Your task to perform on an android device: Empty the shopping cart on walmart.com. Add lenovo thinkpad to the cart on walmart.com, then select checkout. Image 0: 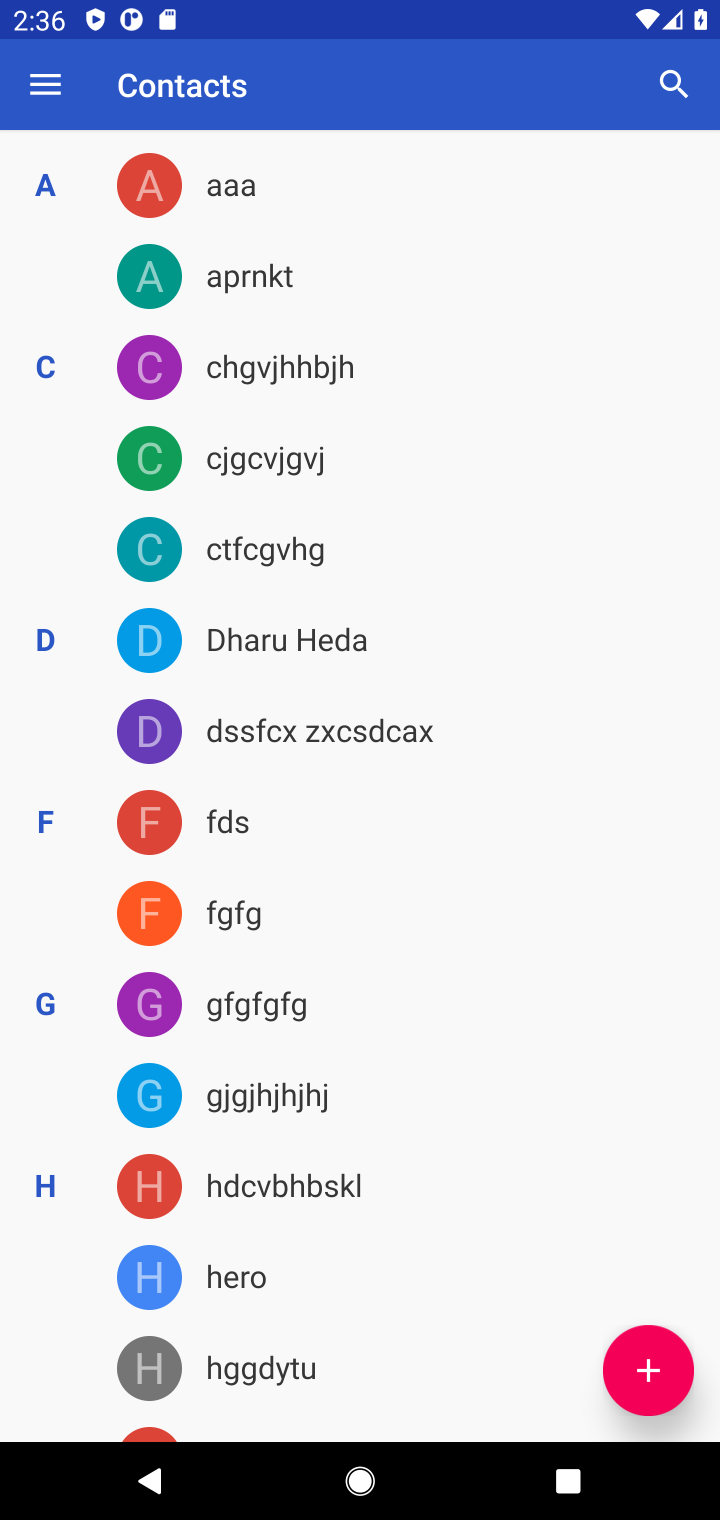
Step 0: press home button
Your task to perform on an android device: Empty the shopping cart on walmart.com. Add lenovo thinkpad to the cart on walmart.com, then select checkout. Image 1: 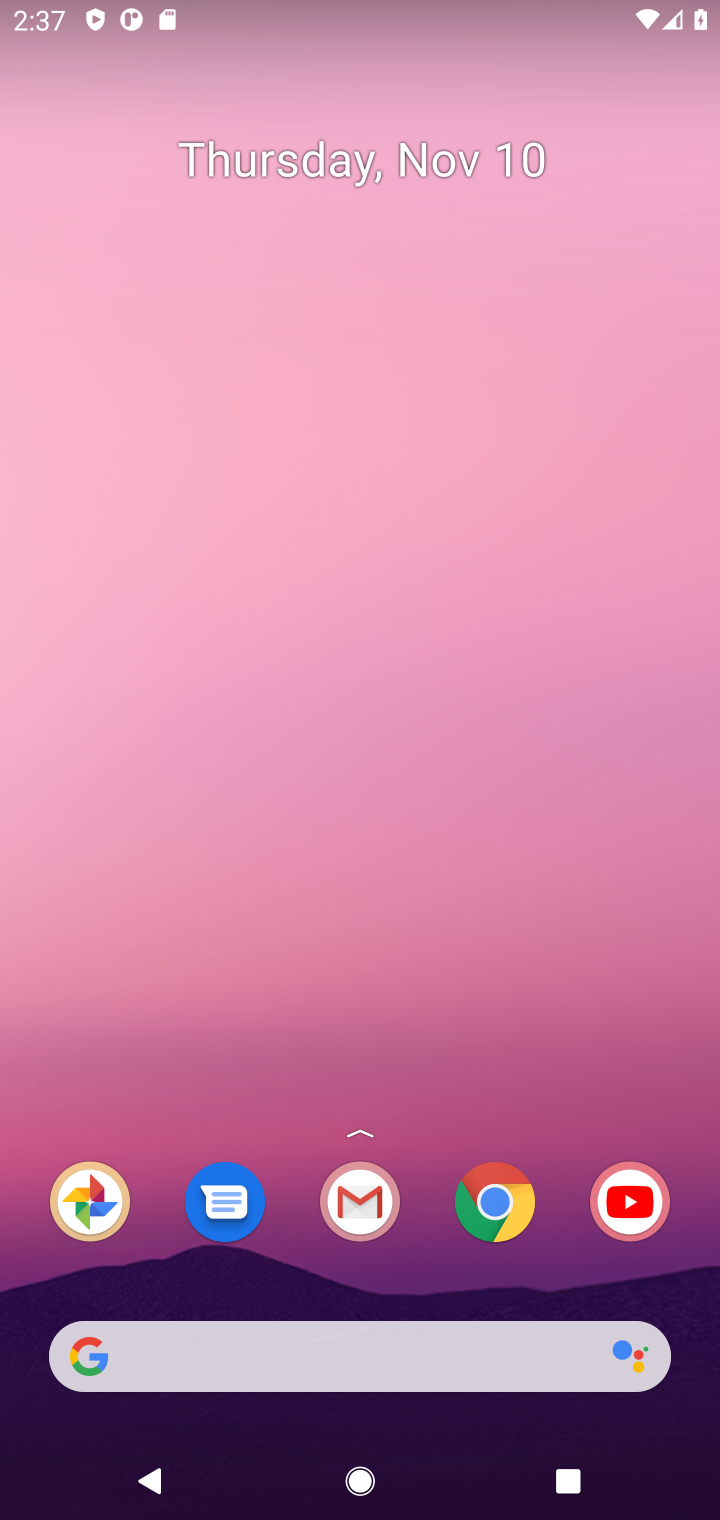
Step 1: click (492, 1201)
Your task to perform on an android device: Empty the shopping cart on walmart.com. Add lenovo thinkpad to the cart on walmart.com, then select checkout. Image 2: 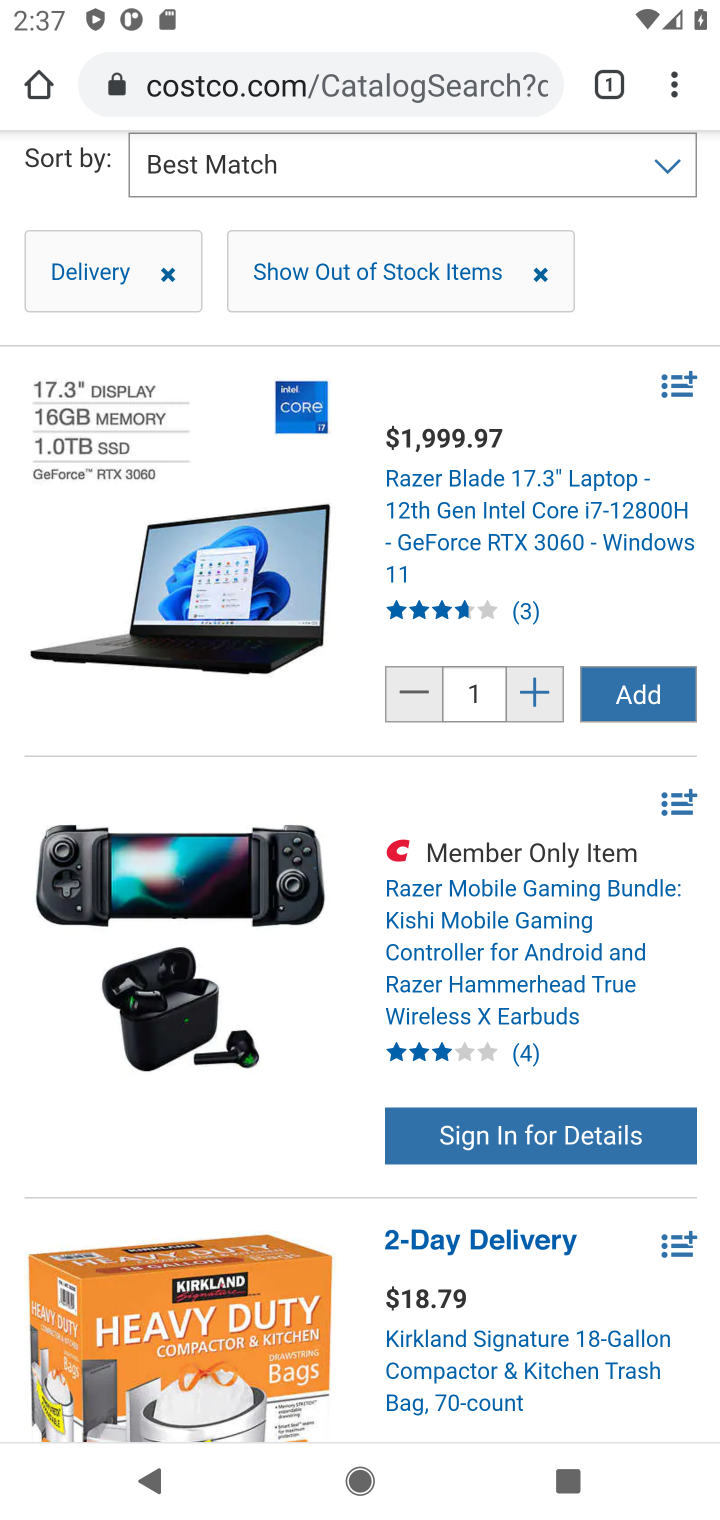
Step 2: click (356, 90)
Your task to perform on an android device: Empty the shopping cart on walmart.com. Add lenovo thinkpad to the cart on walmart.com, then select checkout. Image 3: 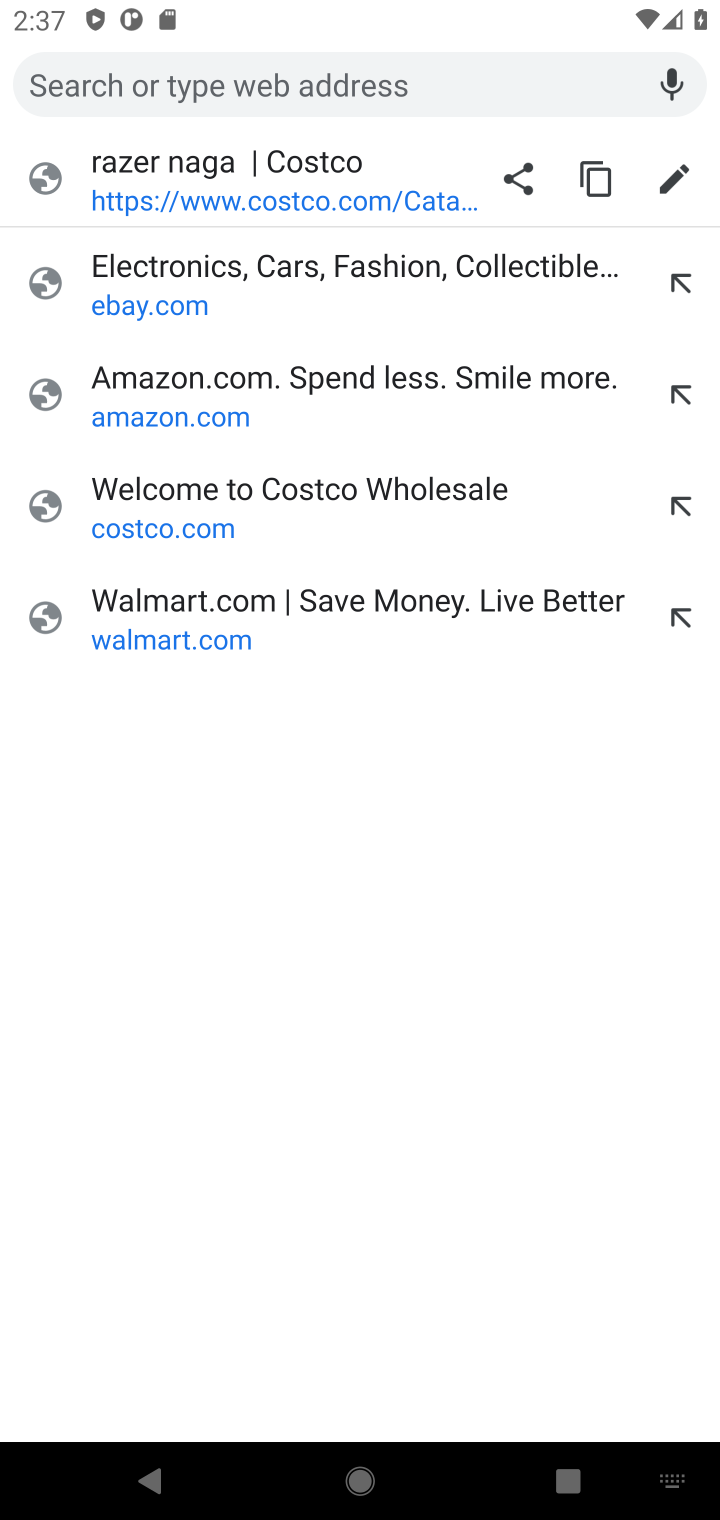
Step 3: press enter
Your task to perform on an android device: Empty the shopping cart on walmart.com. Add lenovo thinkpad to the cart on walmart.com, then select checkout. Image 4: 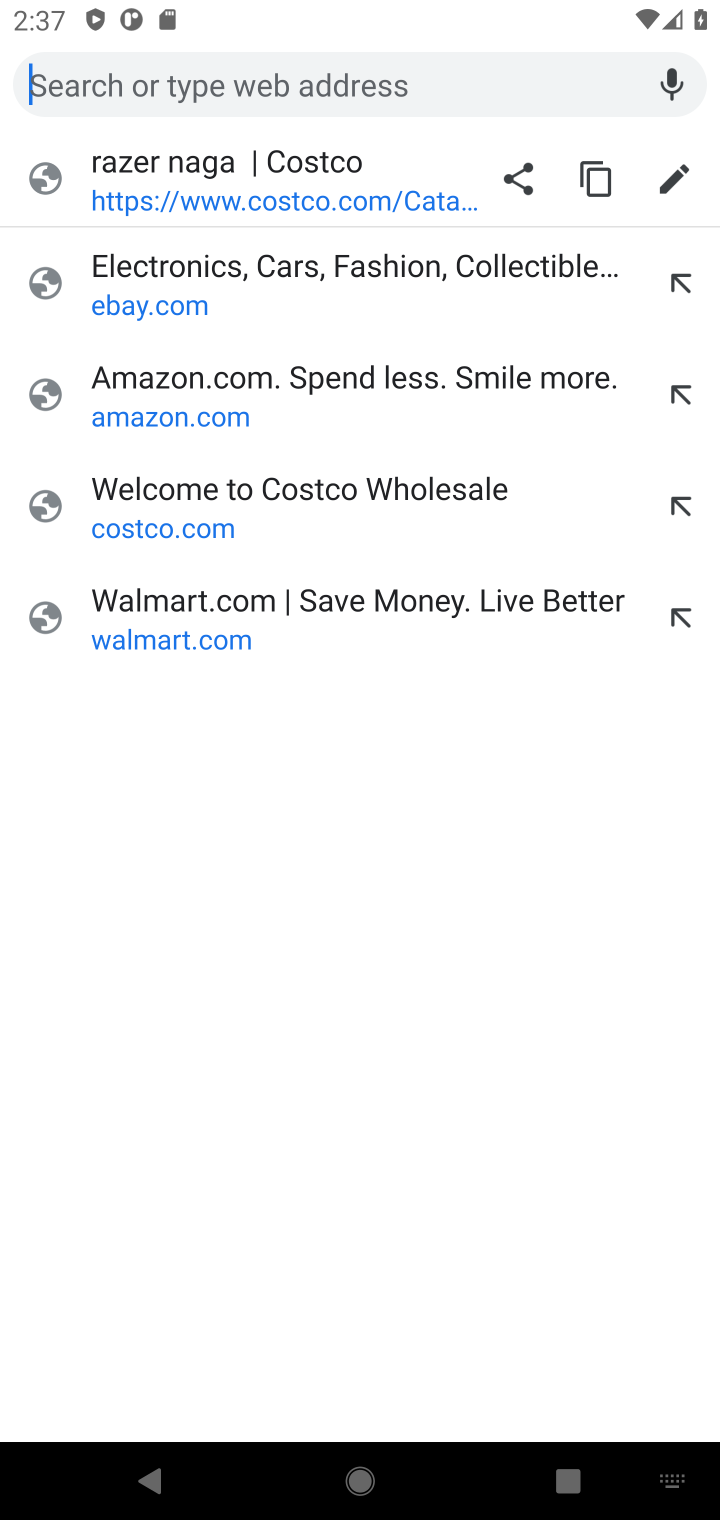
Step 4: type "walmart.com"
Your task to perform on an android device: Empty the shopping cart on walmart.com. Add lenovo thinkpad to the cart on walmart.com, then select checkout. Image 5: 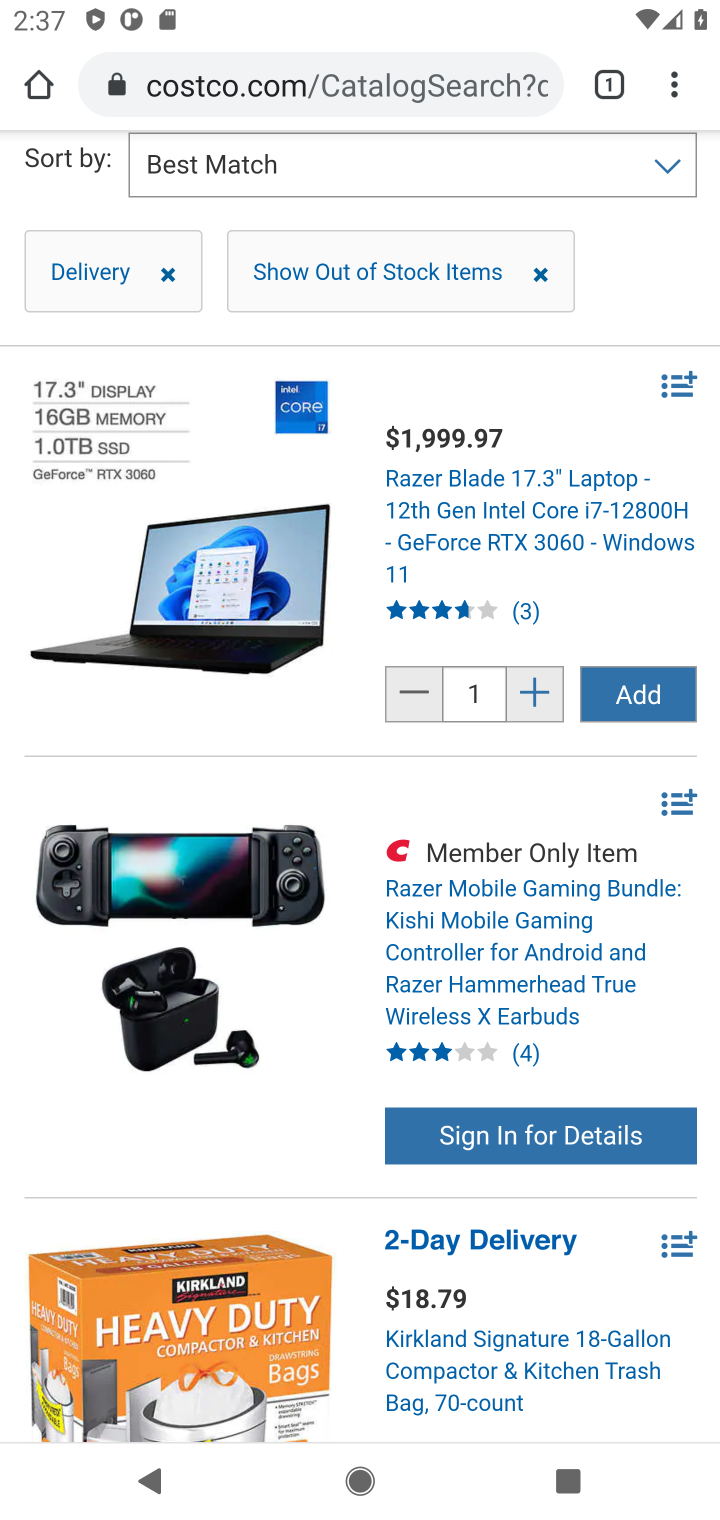
Step 5: drag from (353, 170) to (417, 800)
Your task to perform on an android device: Empty the shopping cart on walmart.com. Add lenovo thinkpad to the cart on walmart.com, then select checkout. Image 6: 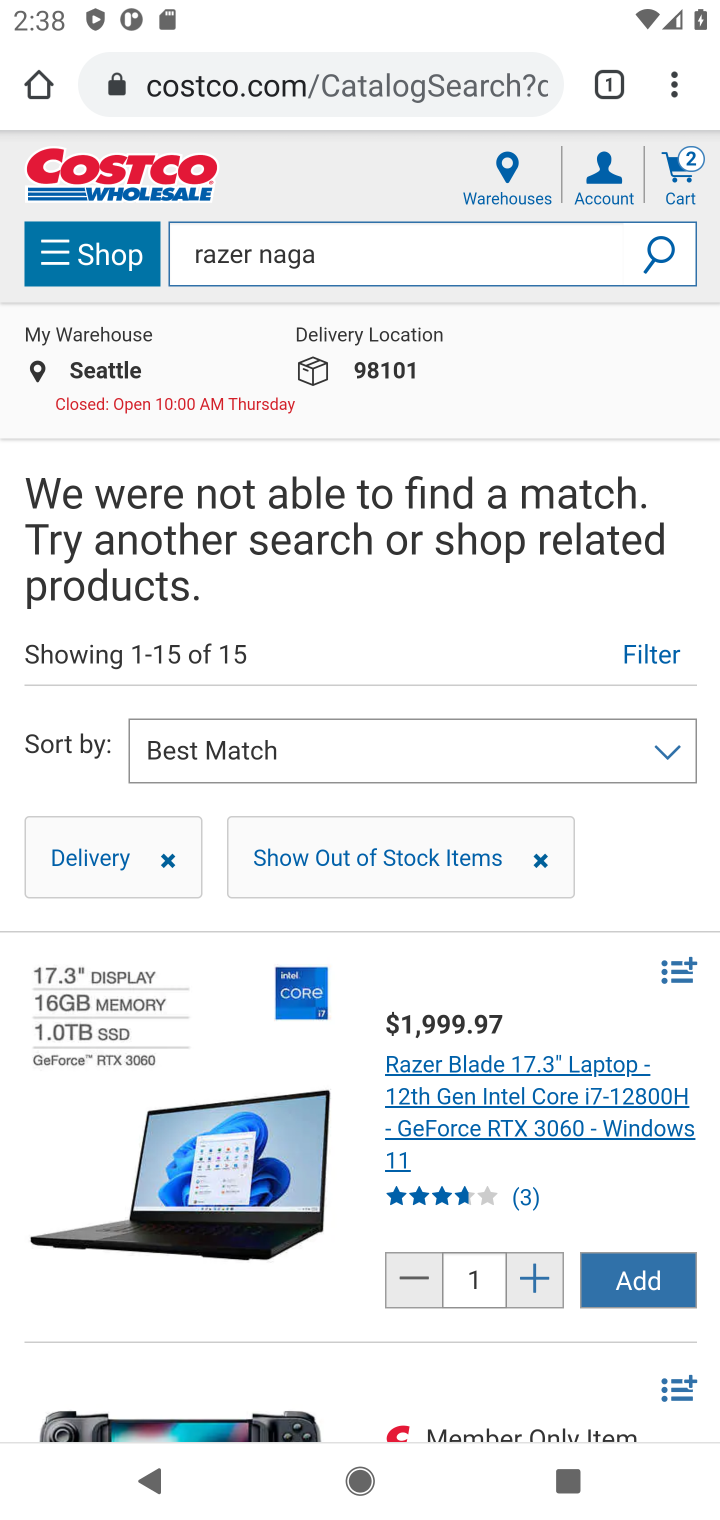
Step 6: click (384, 71)
Your task to perform on an android device: Empty the shopping cart on walmart.com. Add lenovo thinkpad to the cart on walmart.com, then select checkout. Image 7: 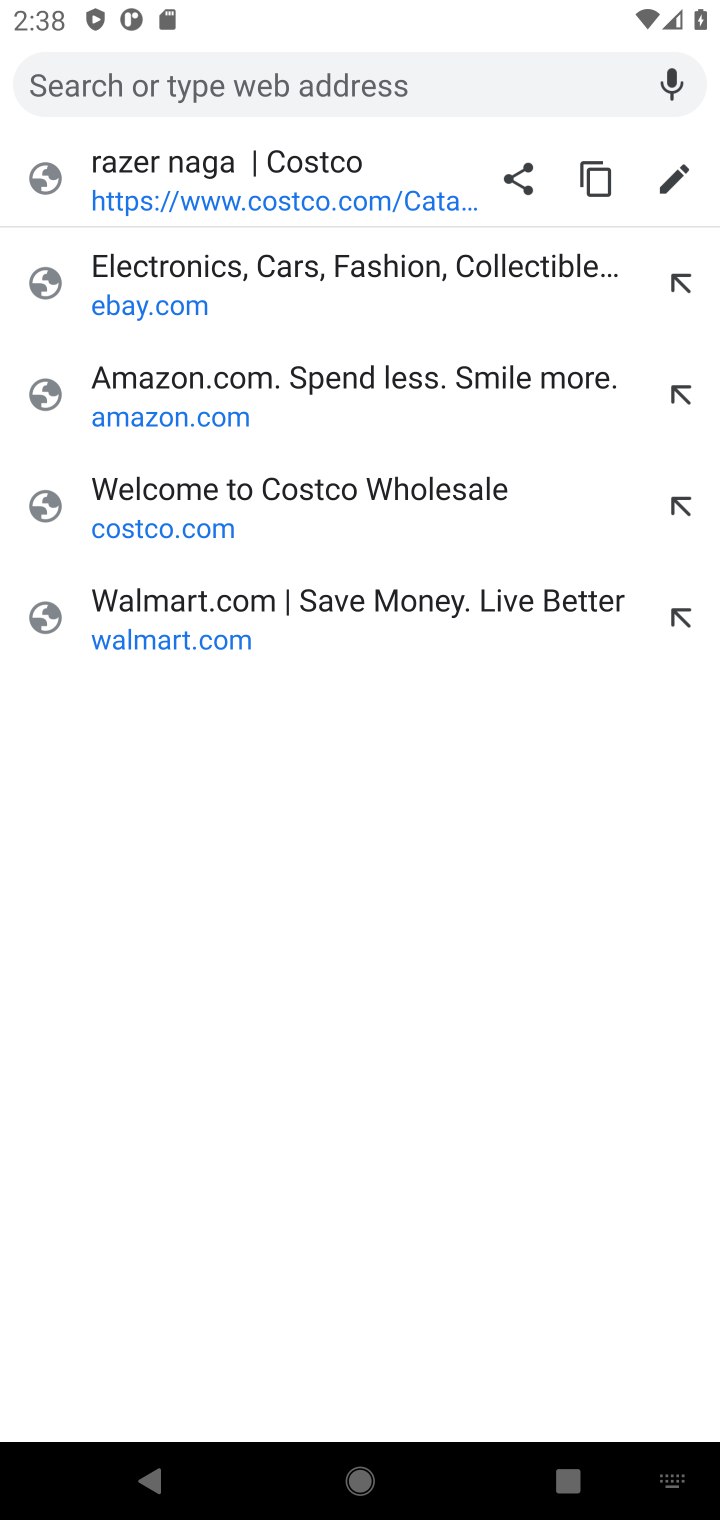
Step 7: press enter
Your task to perform on an android device: Empty the shopping cart on walmart.com. Add lenovo thinkpad to the cart on walmart.com, then select checkout. Image 8: 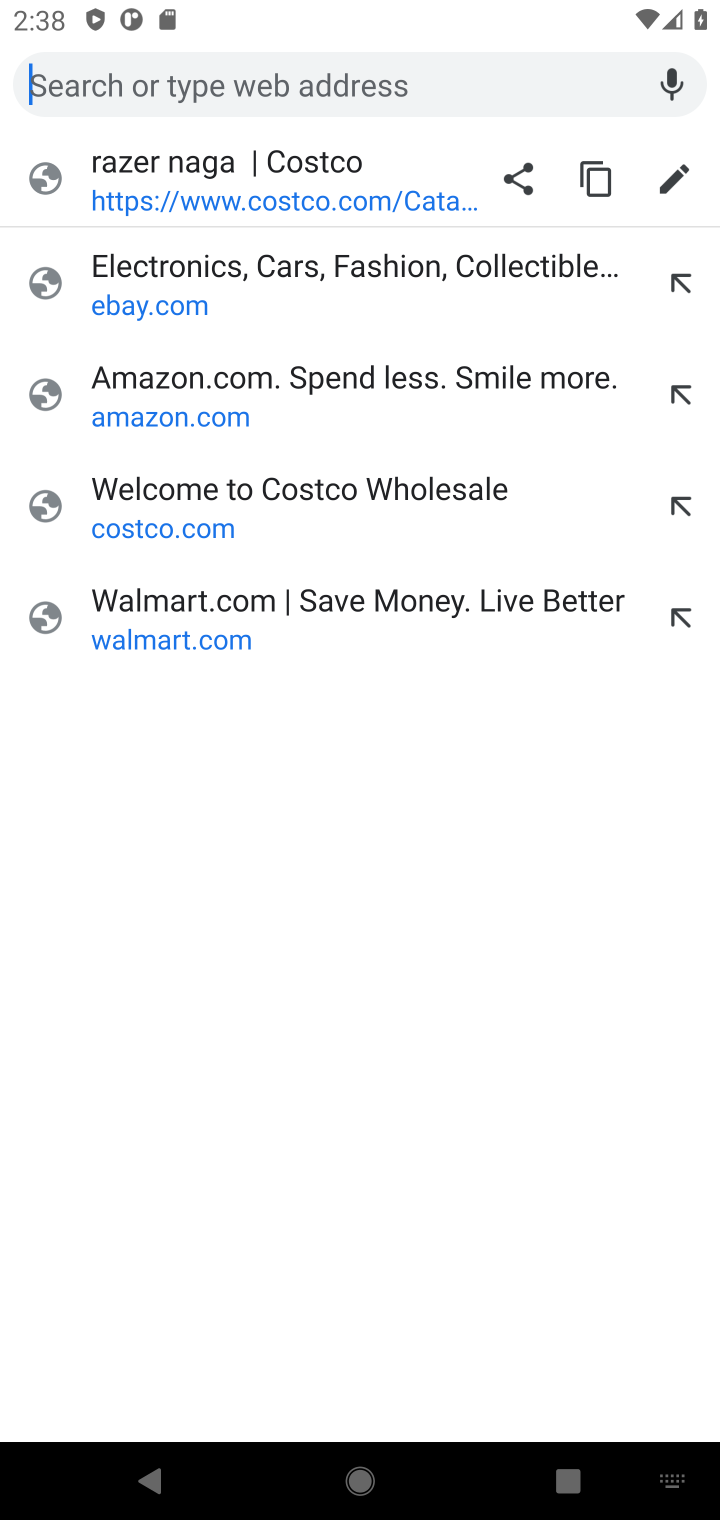
Step 8: type "walmart.com"
Your task to perform on an android device: Empty the shopping cart on walmart.com. Add lenovo thinkpad to the cart on walmart.com, then select checkout. Image 9: 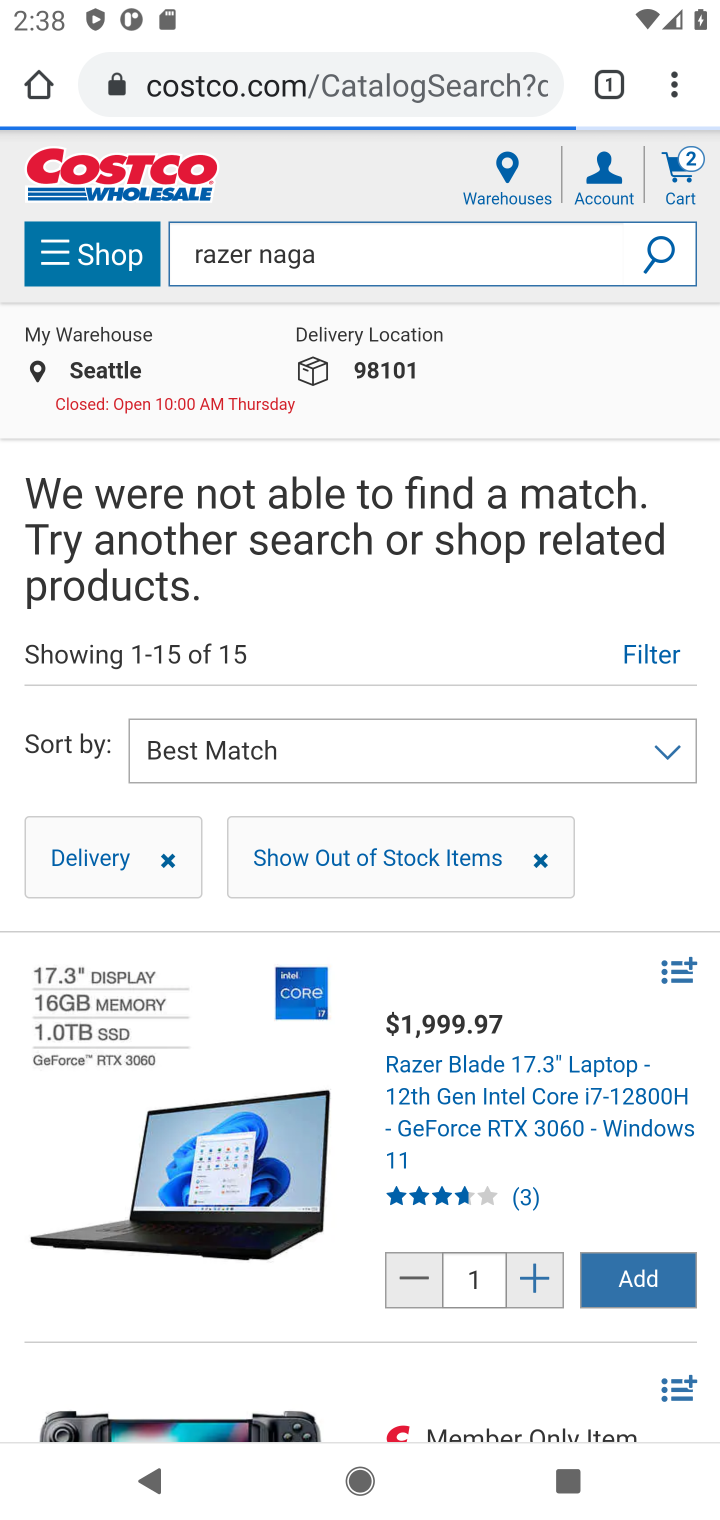
Step 9: click (34, 85)
Your task to perform on an android device: Empty the shopping cart on walmart.com. Add lenovo thinkpad to the cart on walmart.com, then select checkout. Image 10: 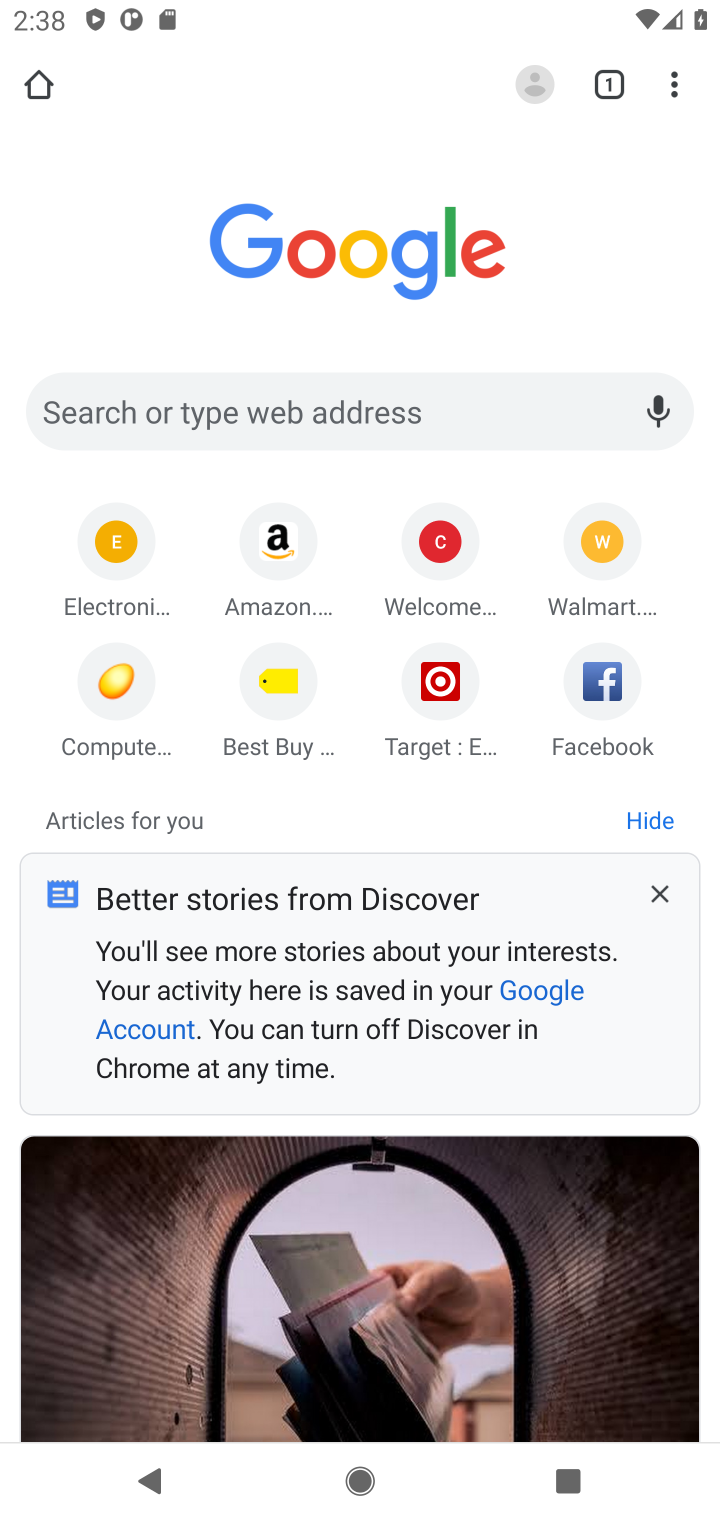
Step 10: click (597, 557)
Your task to perform on an android device: Empty the shopping cart on walmart.com. Add lenovo thinkpad to the cart on walmart.com, then select checkout. Image 11: 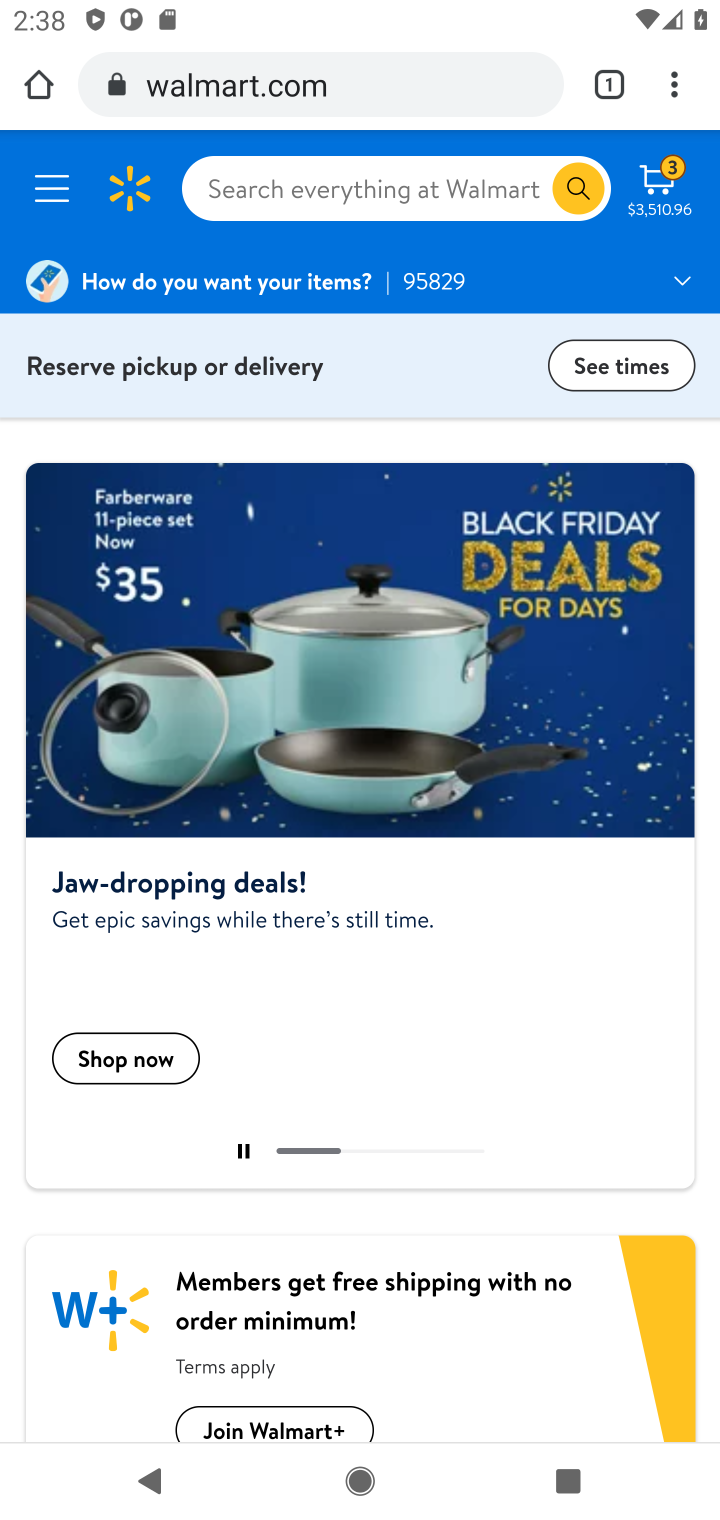
Step 11: click (651, 182)
Your task to perform on an android device: Empty the shopping cart on walmart.com. Add lenovo thinkpad to the cart on walmart.com, then select checkout. Image 12: 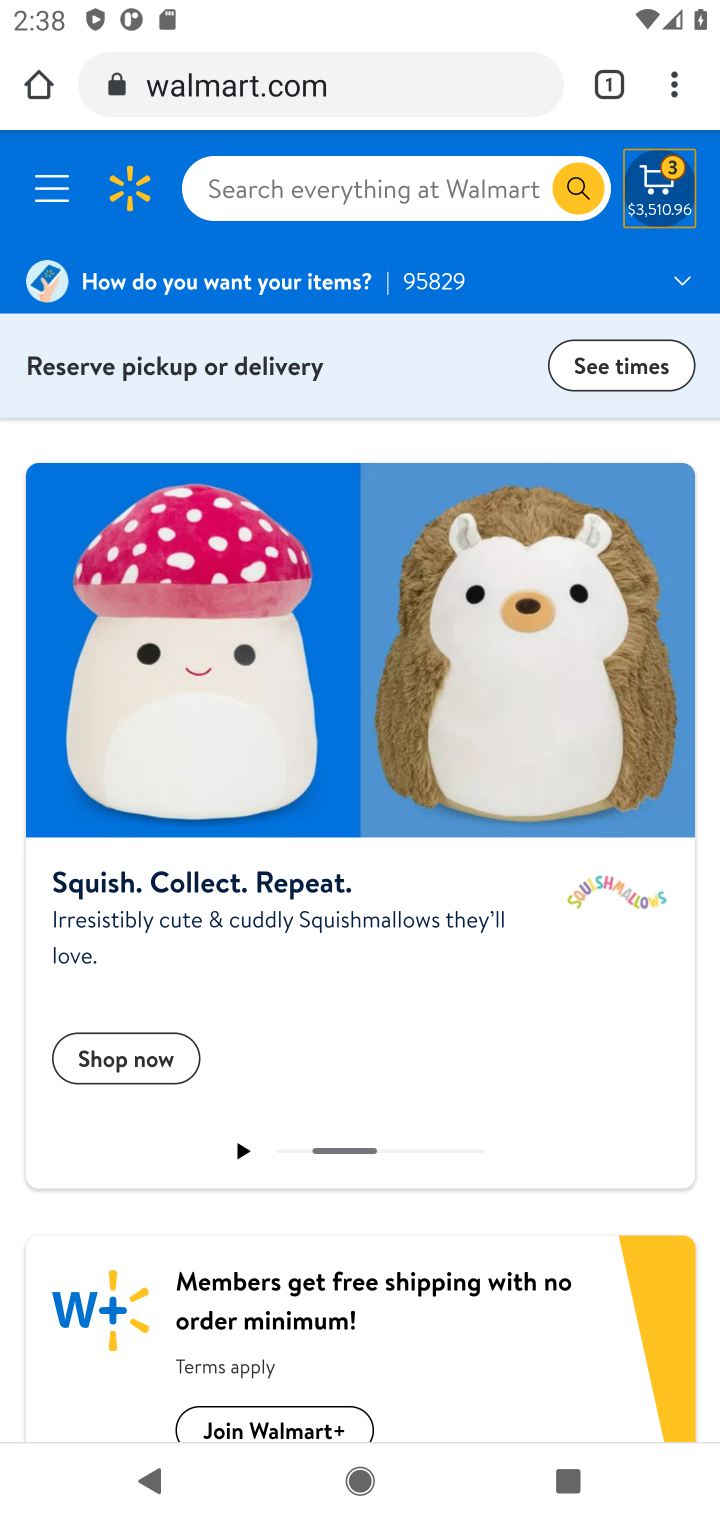
Step 12: click (651, 182)
Your task to perform on an android device: Empty the shopping cart on walmart.com. Add lenovo thinkpad to the cart on walmart.com, then select checkout. Image 13: 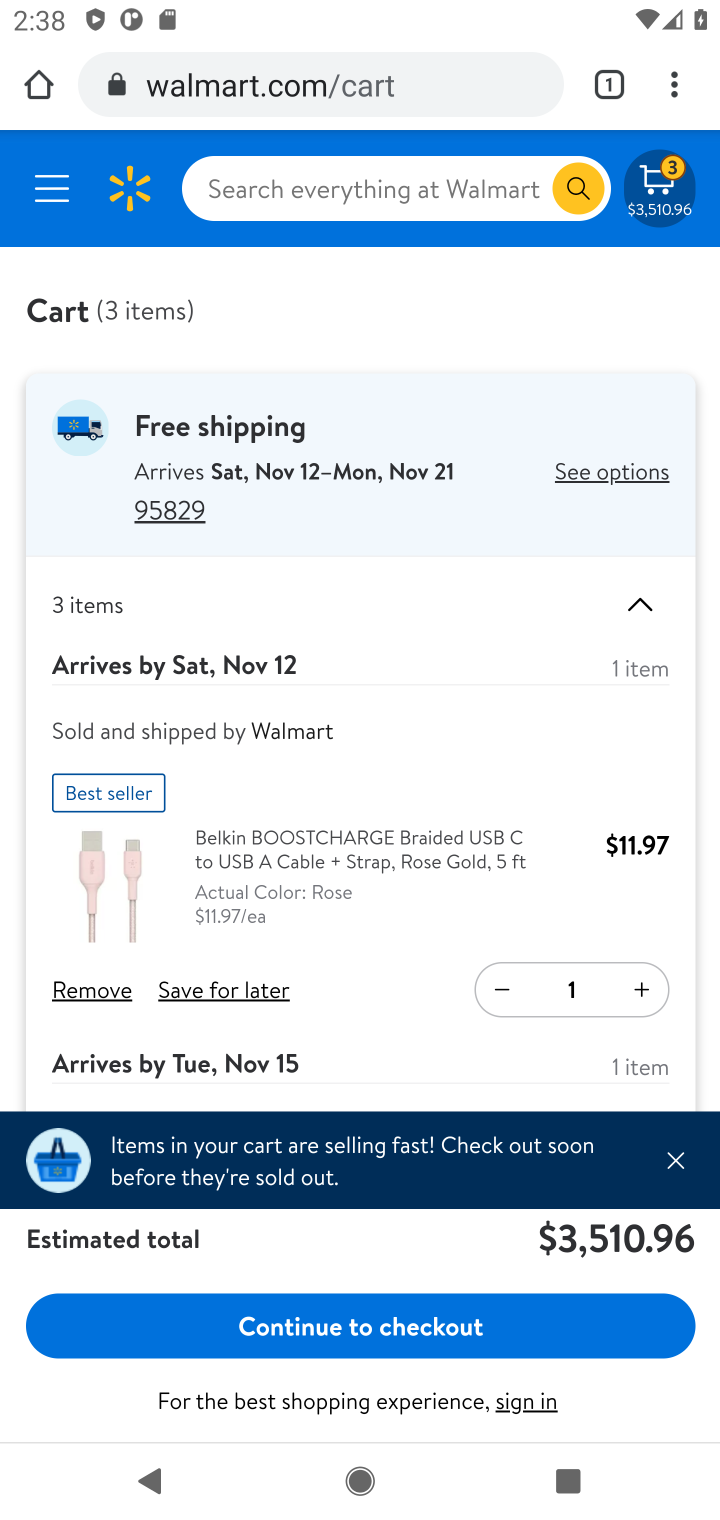
Step 13: click (93, 985)
Your task to perform on an android device: Empty the shopping cart on walmart.com. Add lenovo thinkpad to the cart on walmart.com, then select checkout. Image 14: 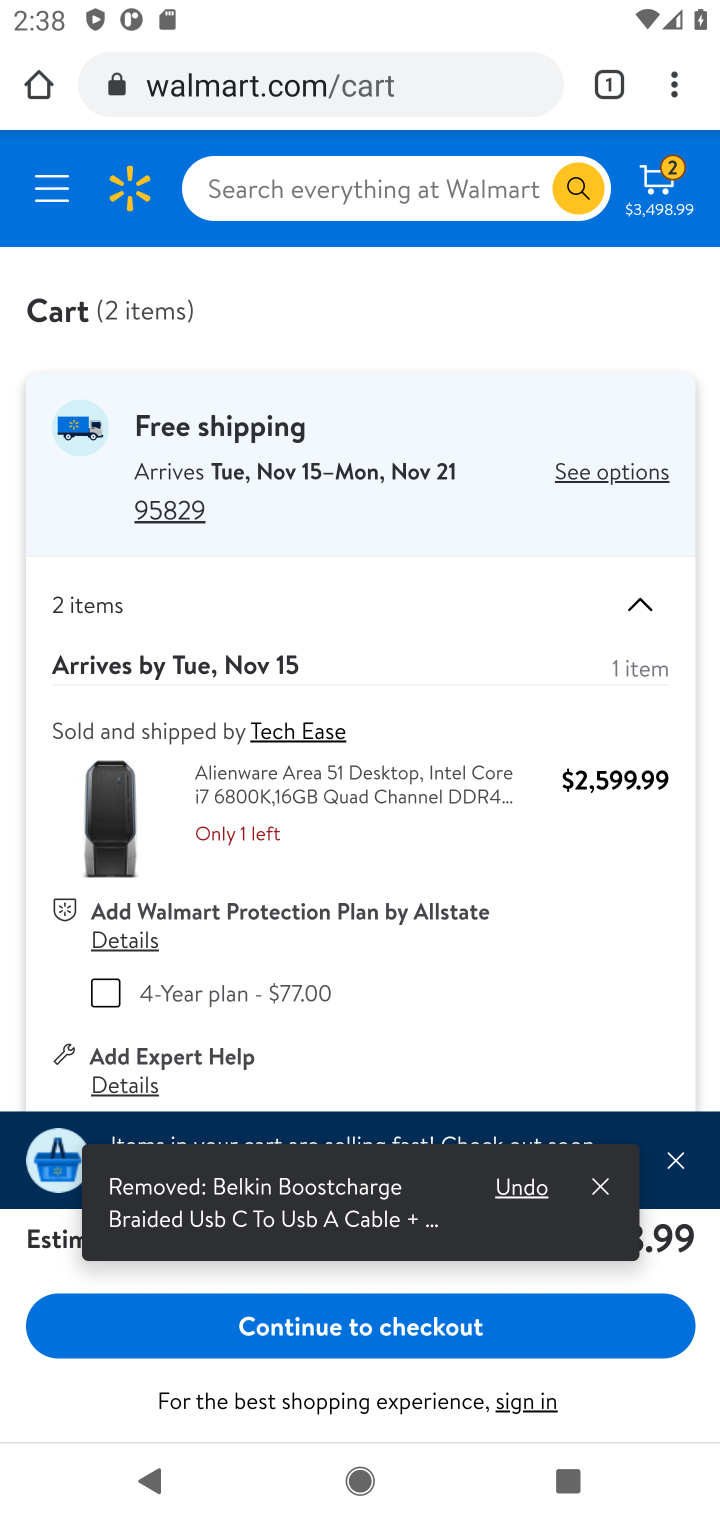
Step 14: drag from (263, 925) to (342, 445)
Your task to perform on an android device: Empty the shopping cart on walmart.com. Add lenovo thinkpad to the cart on walmart.com, then select checkout. Image 15: 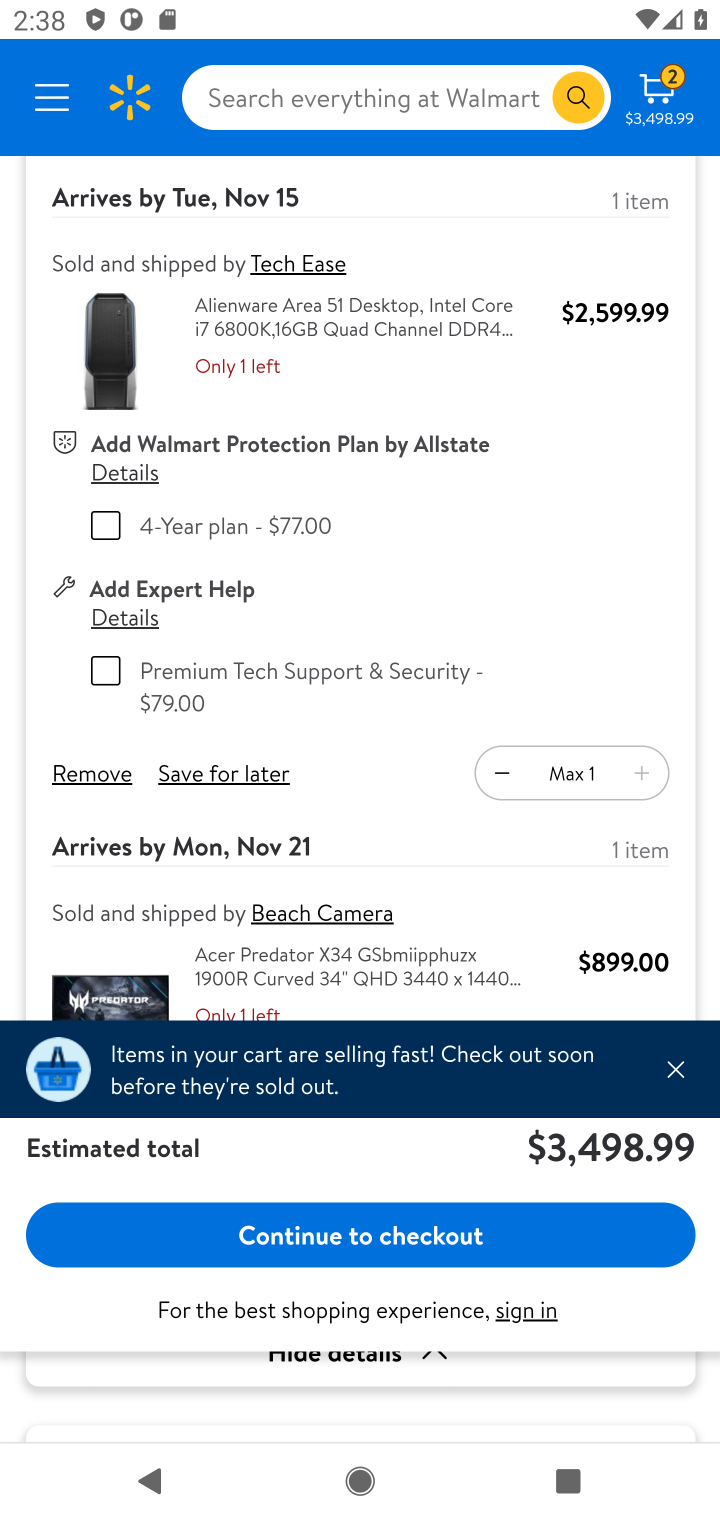
Step 15: click (98, 771)
Your task to perform on an android device: Empty the shopping cart on walmart.com. Add lenovo thinkpad to the cart on walmart.com, then select checkout. Image 16: 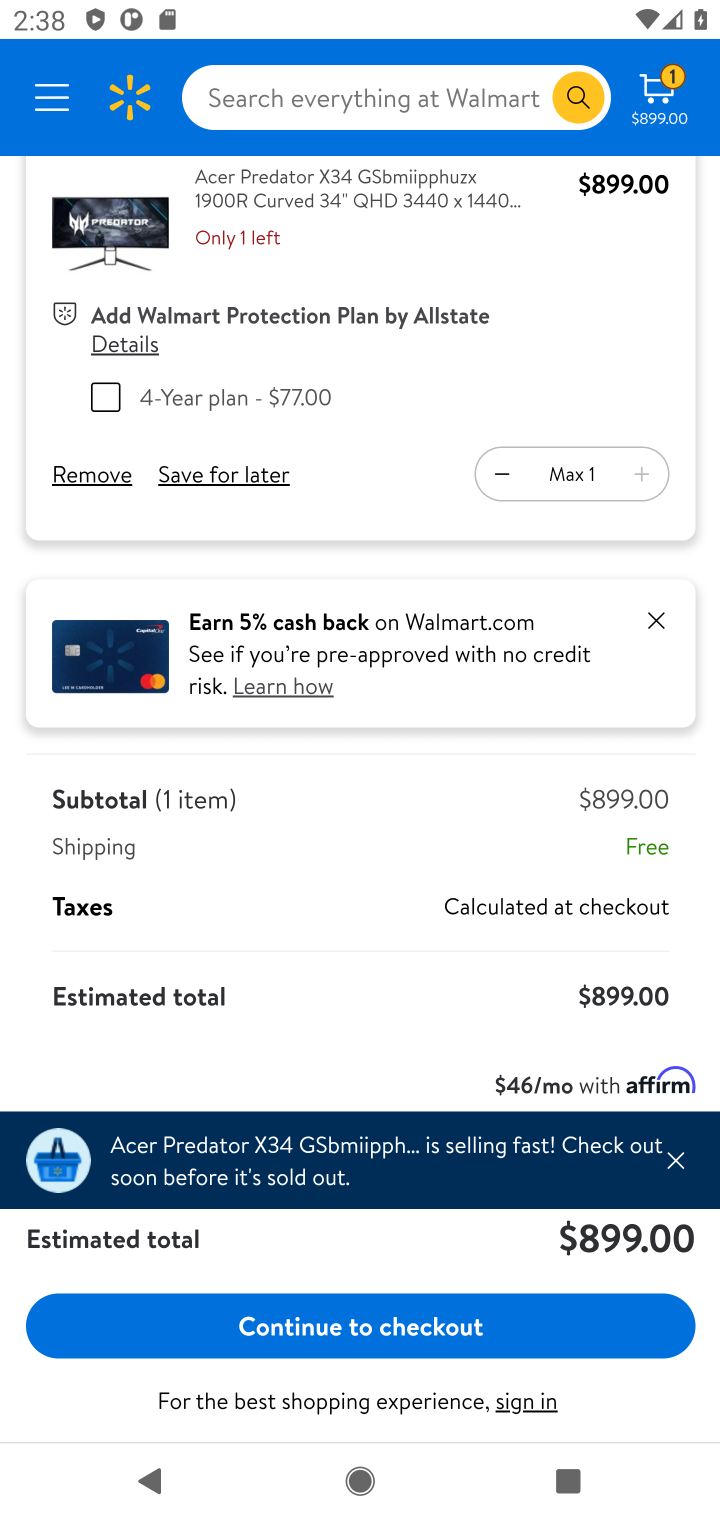
Step 16: drag from (319, 864) to (306, 1089)
Your task to perform on an android device: Empty the shopping cart on walmart.com. Add lenovo thinkpad to the cart on walmart.com, then select checkout. Image 17: 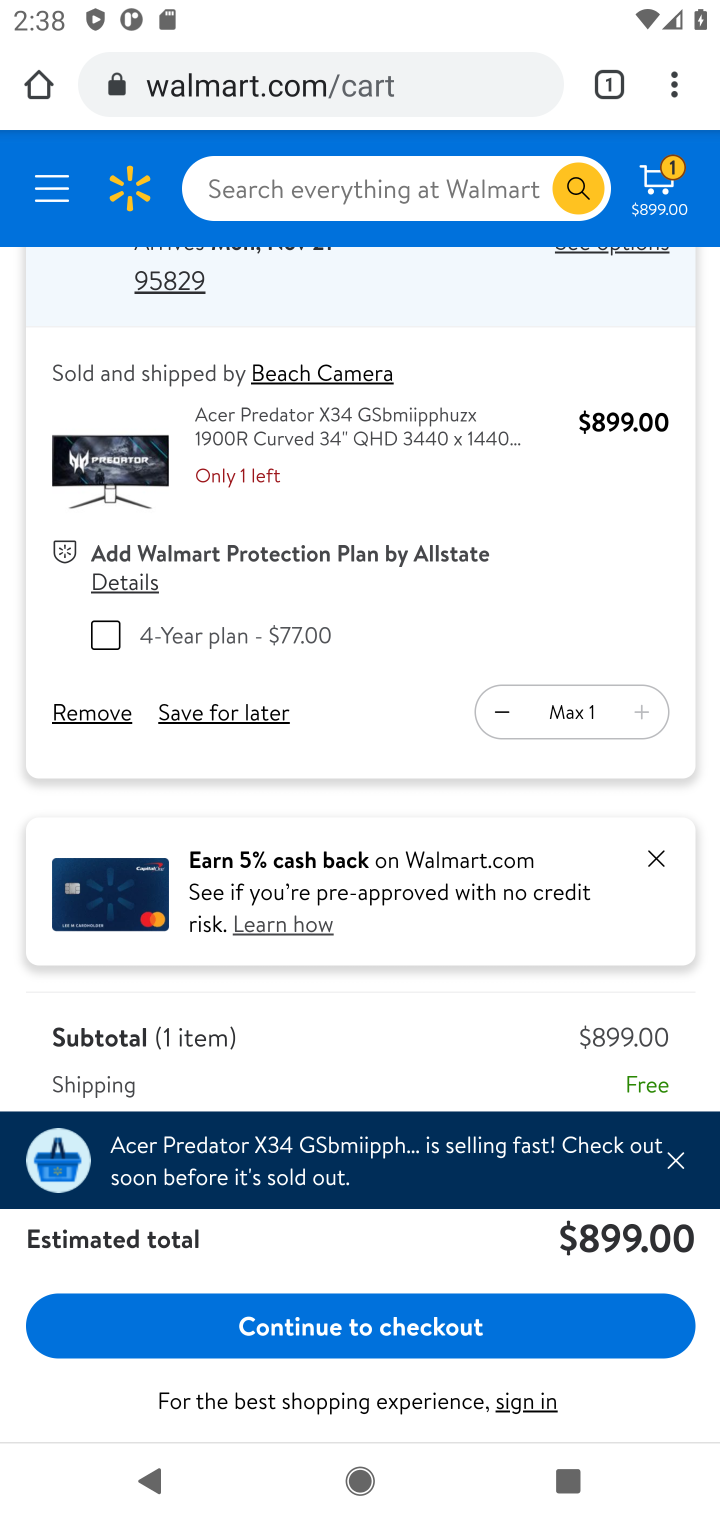
Step 17: click (111, 712)
Your task to perform on an android device: Empty the shopping cart on walmart.com. Add lenovo thinkpad to the cart on walmart.com, then select checkout. Image 18: 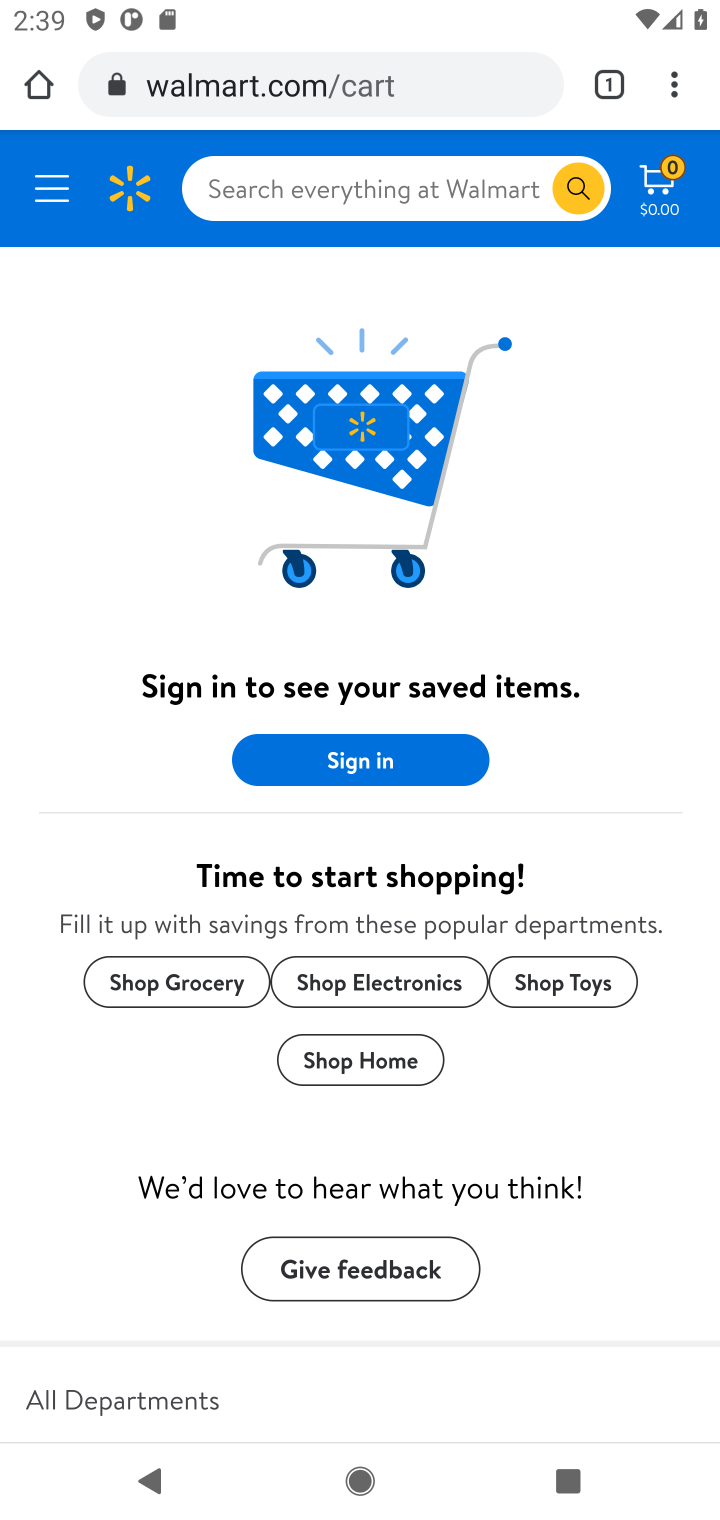
Step 18: click (455, 180)
Your task to perform on an android device: Empty the shopping cart on walmart.com. Add lenovo thinkpad to the cart on walmart.com, then select checkout. Image 19: 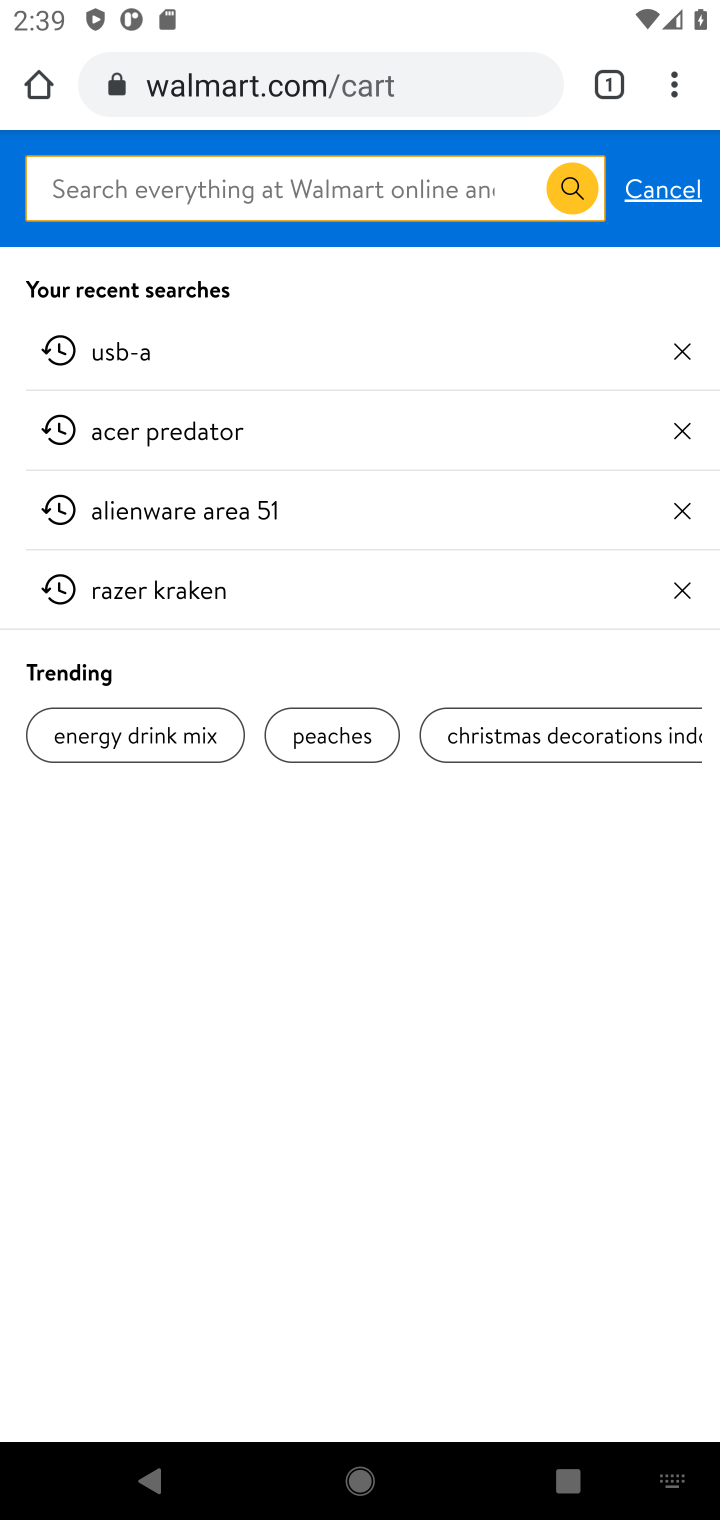
Step 19: type "lenovo thinkpad"
Your task to perform on an android device: Empty the shopping cart on walmart.com. Add lenovo thinkpad to the cart on walmart.com, then select checkout. Image 20: 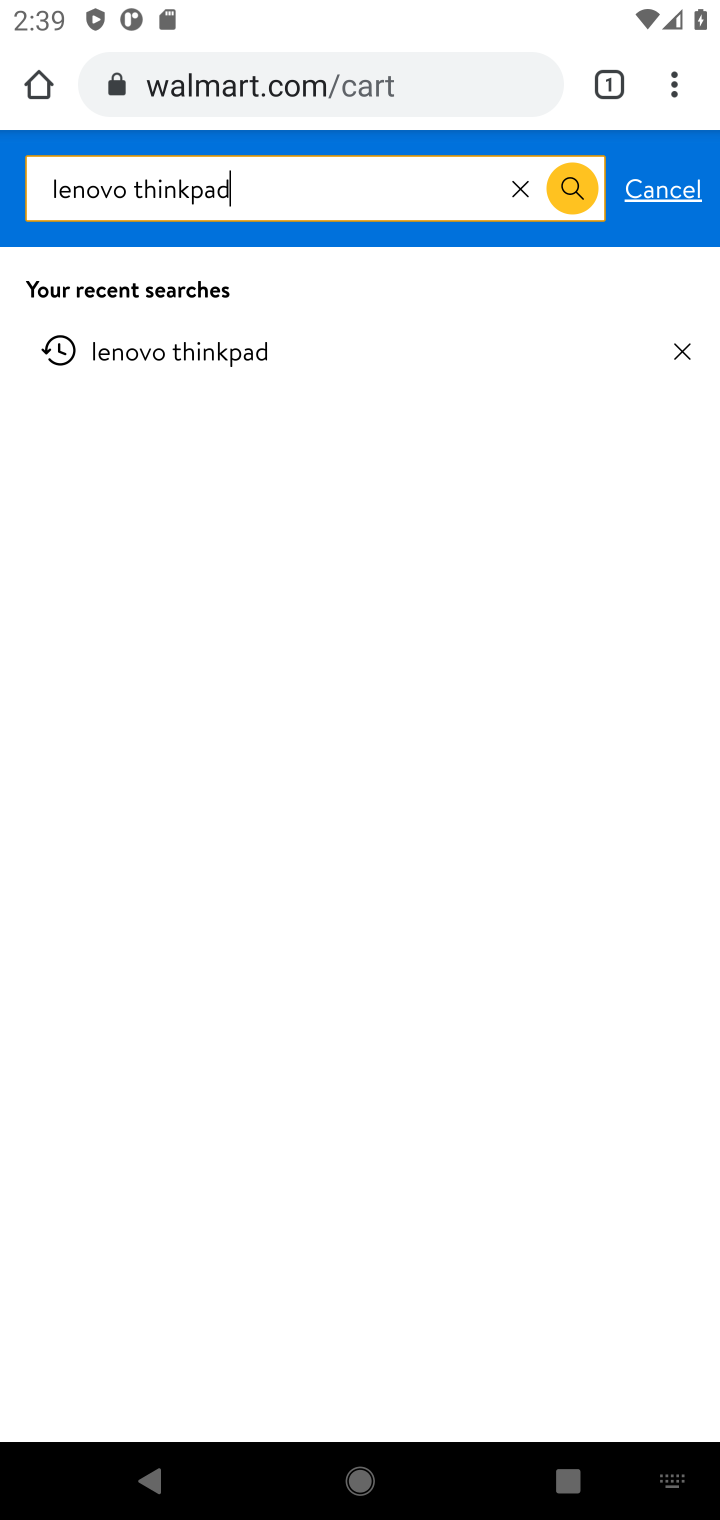
Step 20: press enter
Your task to perform on an android device: Empty the shopping cart on walmart.com. Add lenovo thinkpad to the cart on walmart.com, then select checkout. Image 21: 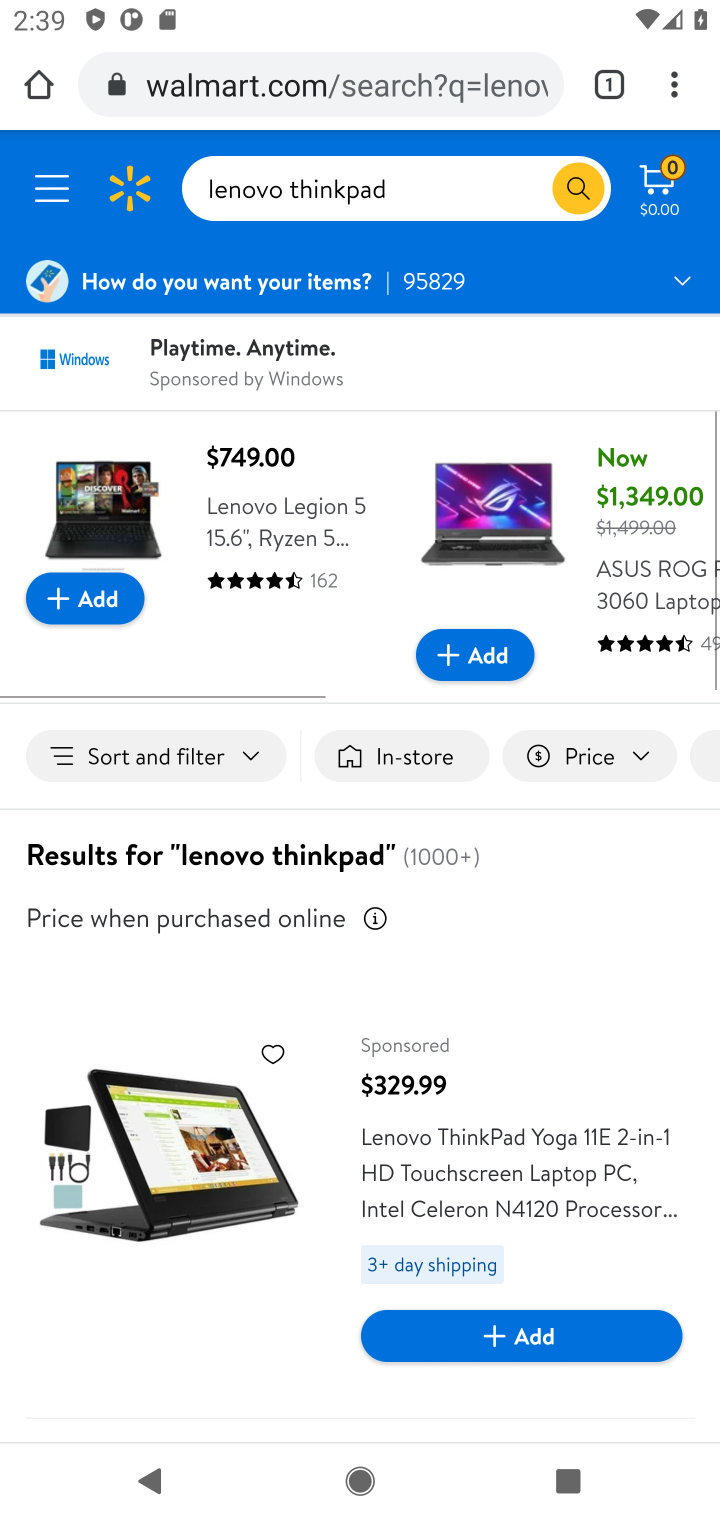
Step 21: click (167, 1157)
Your task to perform on an android device: Empty the shopping cart on walmart.com. Add lenovo thinkpad to the cart on walmart.com, then select checkout. Image 22: 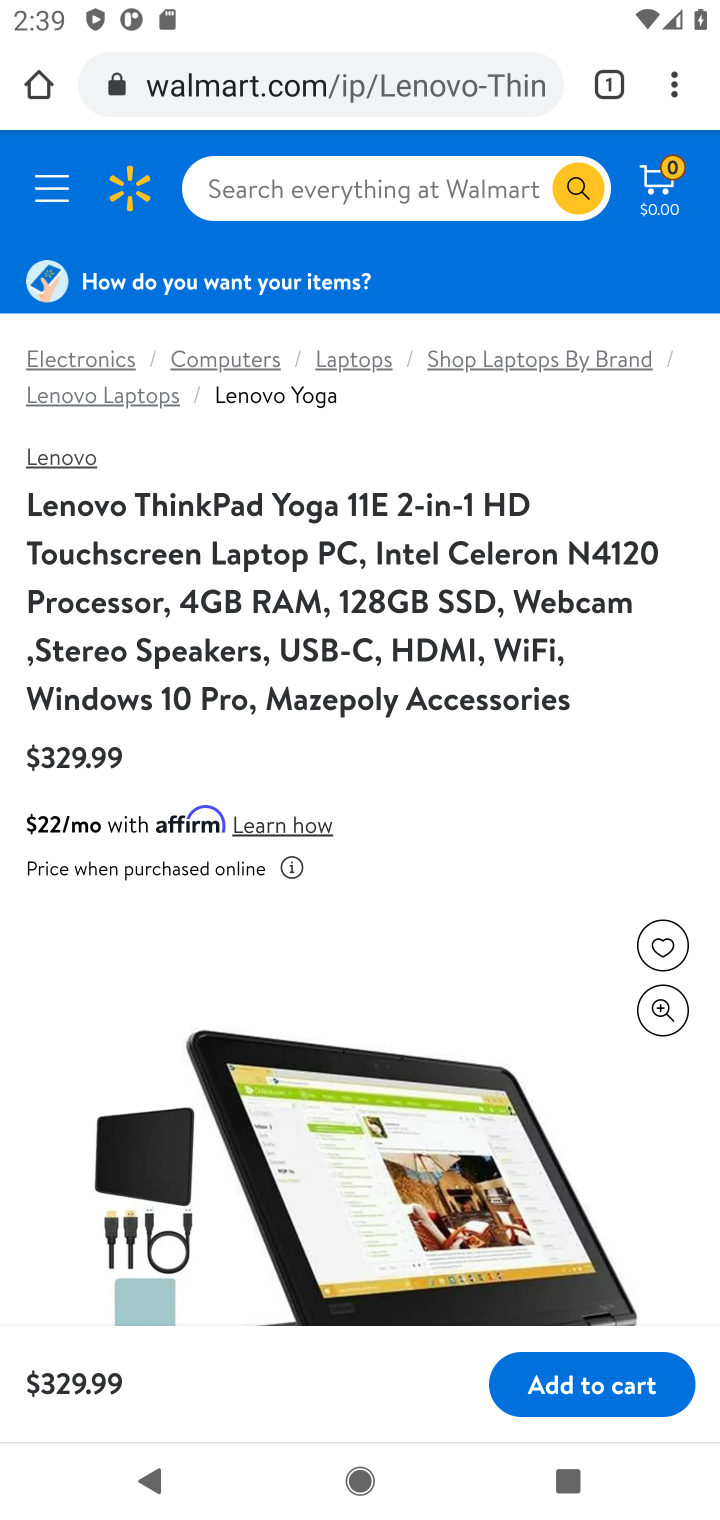
Step 22: click (629, 1379)
Your task to perform on an android device: Empty the shopping cart on walmart.com. Add lenovo thinkpad to the cart on walmart.com, then select checkout. Image 23: 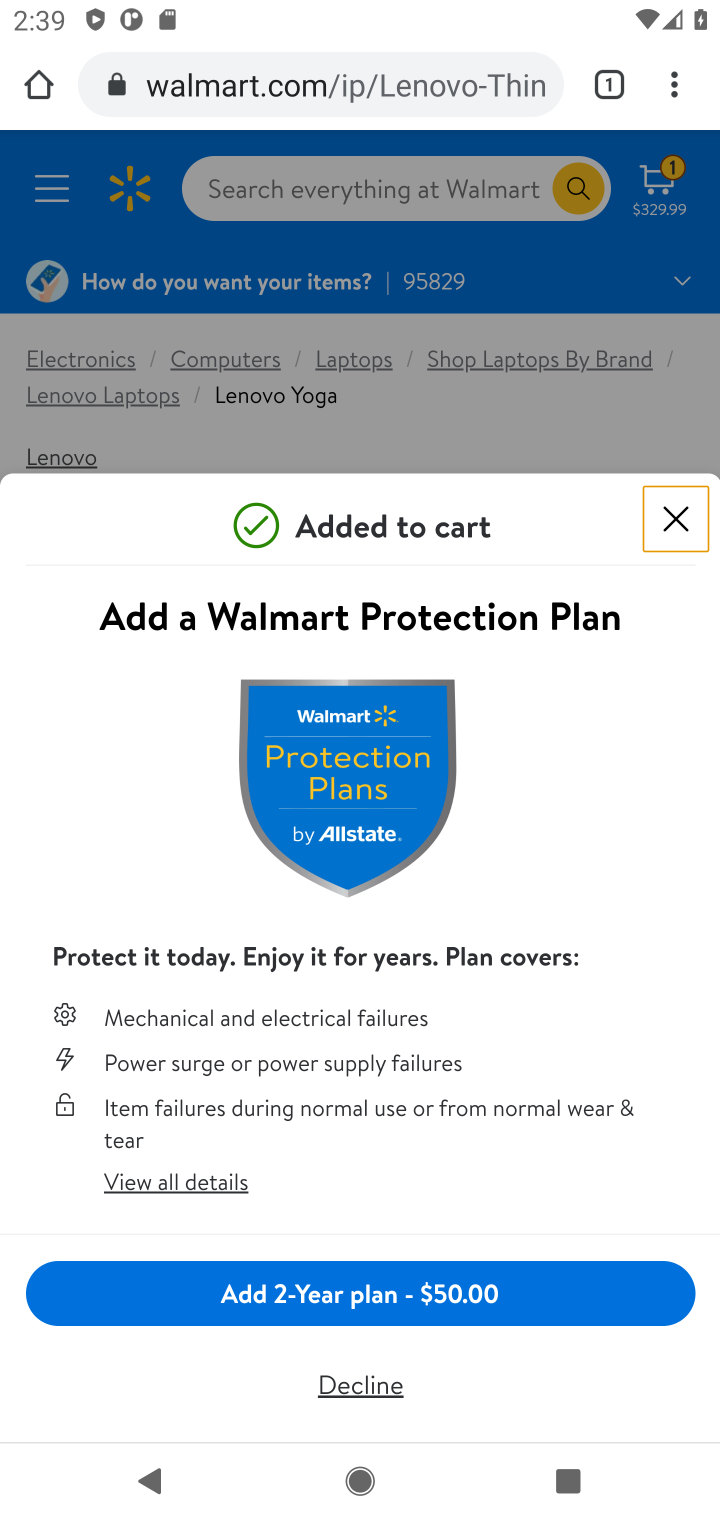
Step 23: click (708, 496)
Your task to perform on an android device: Empty the shopping cart on walmart.com. Add lenovo thinkpad to the cart on walmart.com, then select checkout. Image 24: 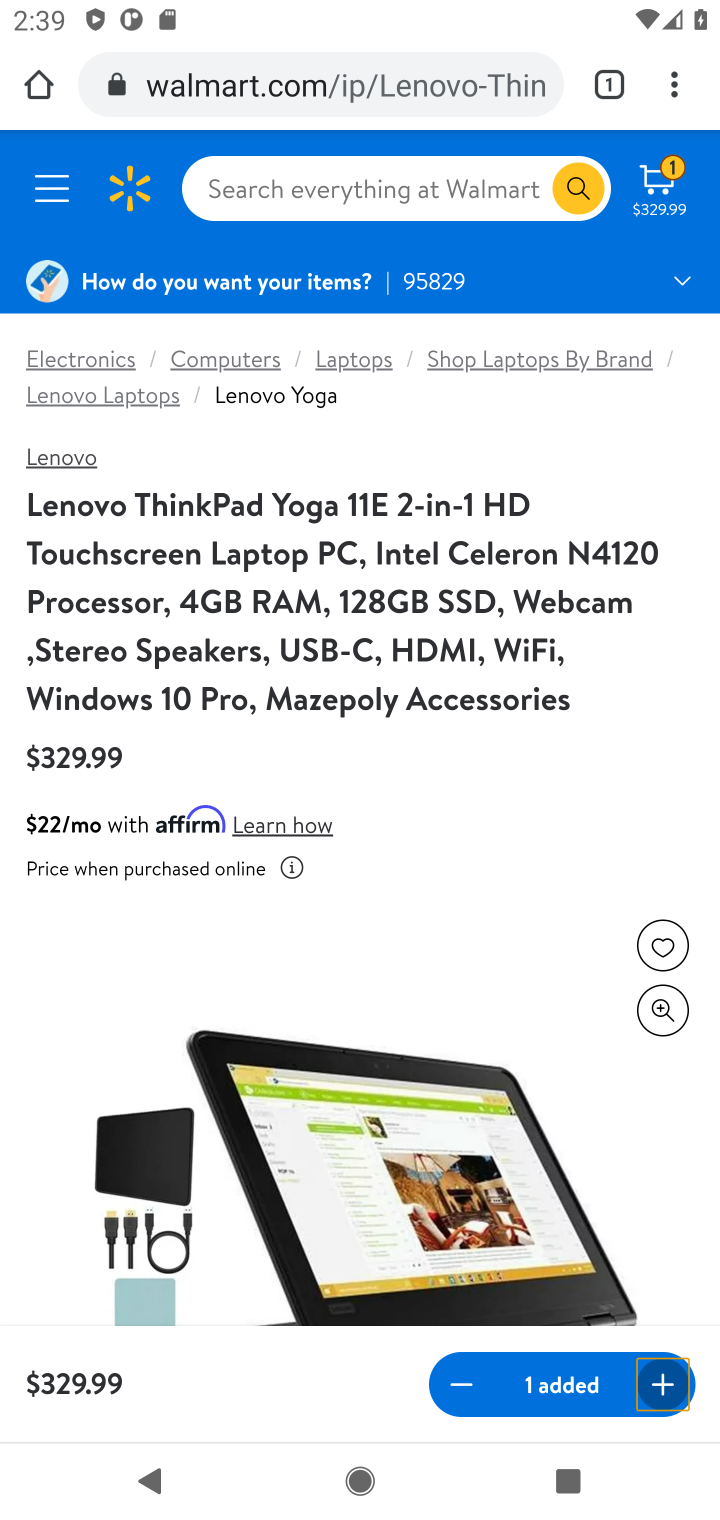
Step 24: click (661, 179)
Your task to perform on an android device: Empty the shopping cart on walmart.com. Add lenovo thinkpad to the cart on walmart.com, then select checkout. Image 25: 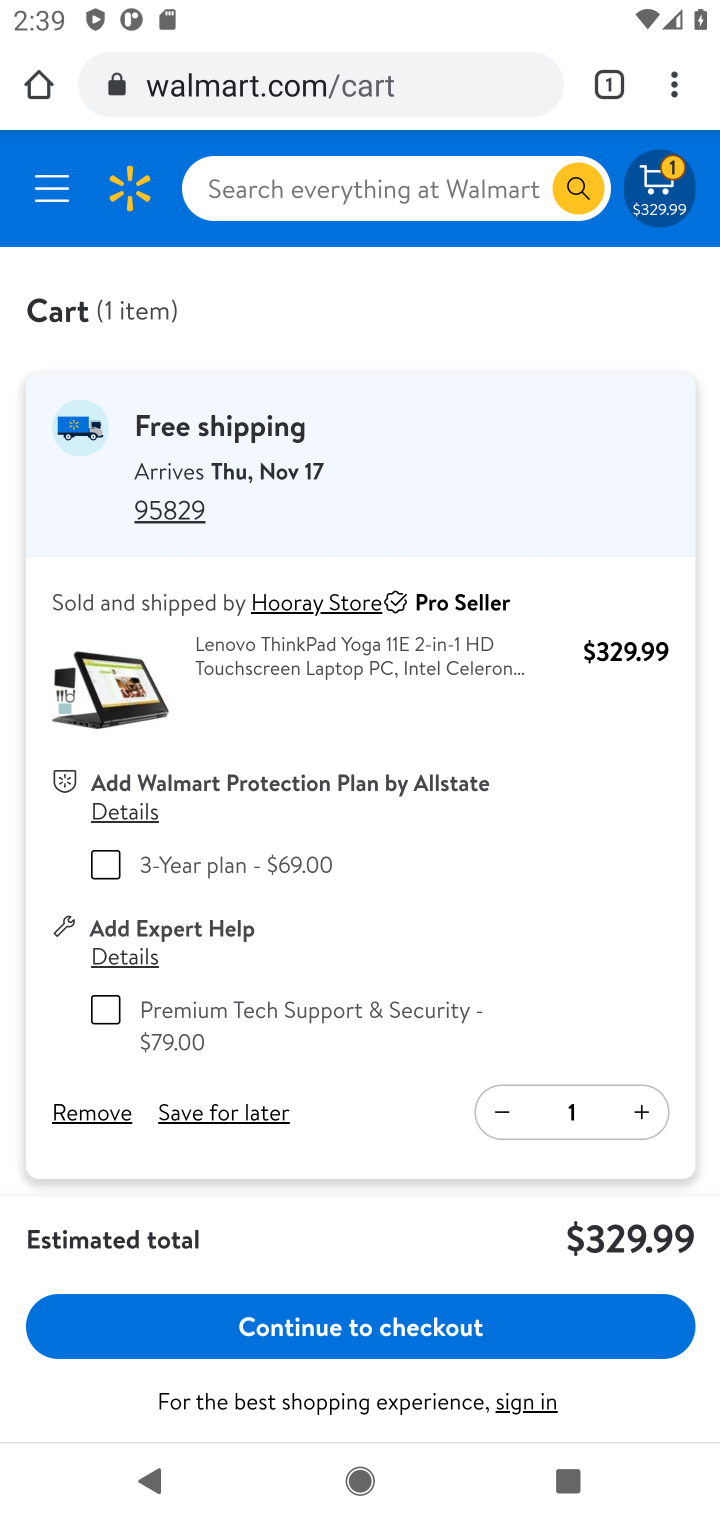
Step 25: click (433, 1320)
Your task to perform on an android device: Empty the shopping cart on walmart.com. Add lenovo thinkpad to the cart on walmart.com, then select checkout. Image 26: 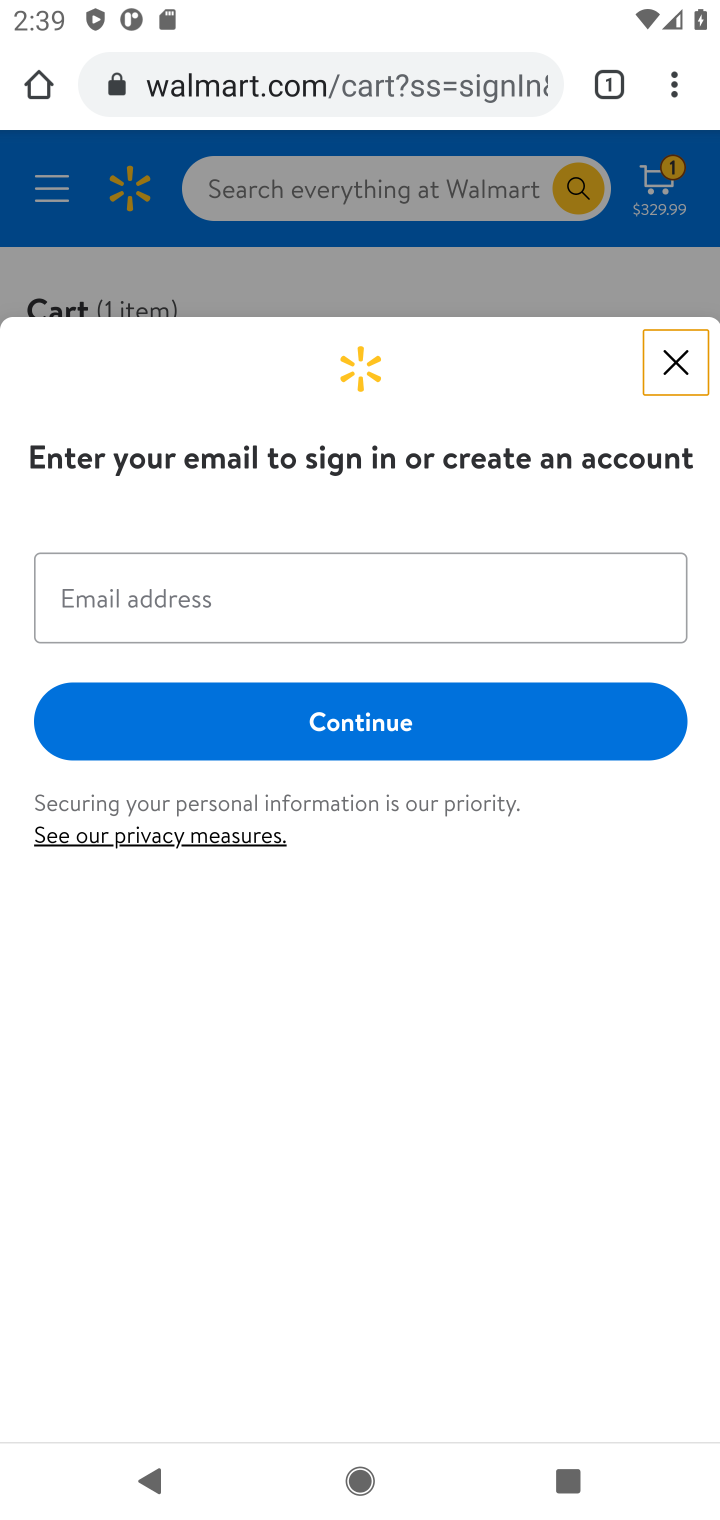
Step 26: task complete